Your task to perform on an android device: toggle improve location accuracy Image 0: 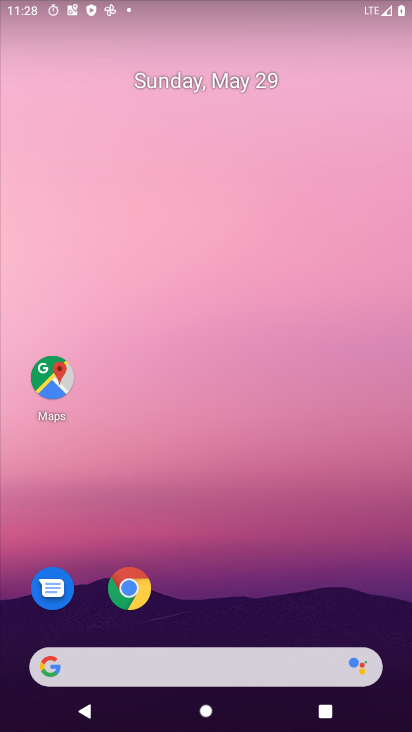
Step 0: drag from (264, 599) to (305, 84)
Your task to perform on an android device: toggle improve location accuracy Image 1: 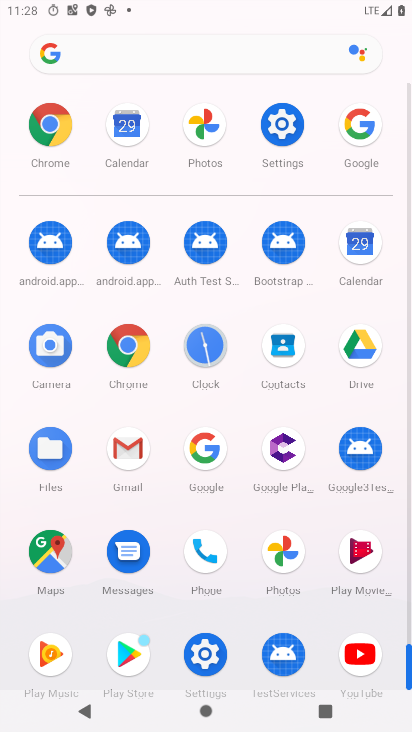
Step 1: click (192, 644)
Your task to perform on an android device: toggle improve location accuracy Image 2: 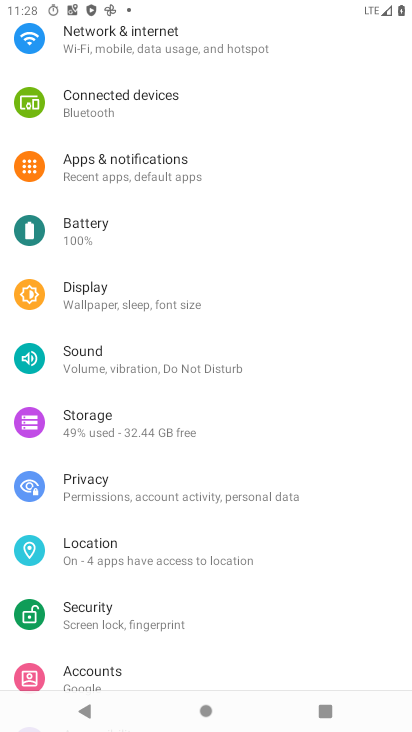
Step 2: click (132, 547)
Your task to perform on an android device: toggle improve location accuracy Image 3: 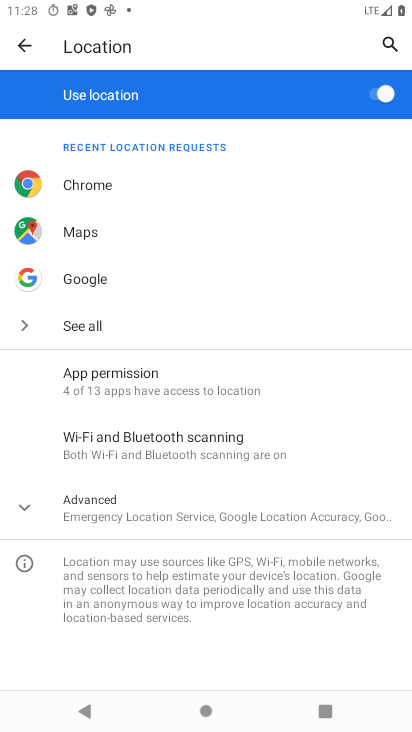
Step 3: click (72, 525)
Your task to perform on an android device: toggle improve location accuracy Image 4: 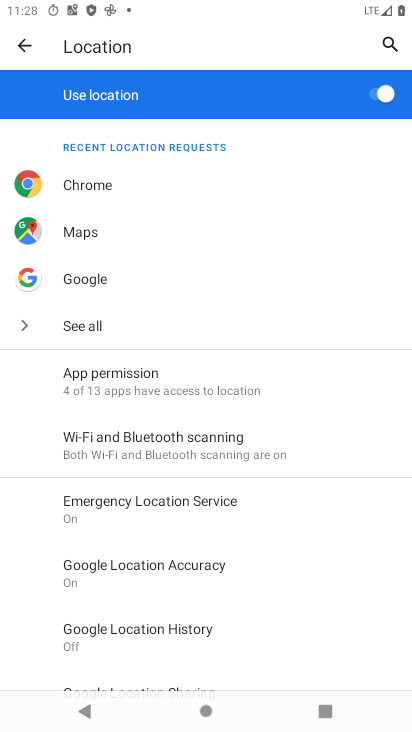
Step 4: drag from (160, 636) to (230, 394)
Your task to perform on an android device: toggle improve location accuracy Image 5: 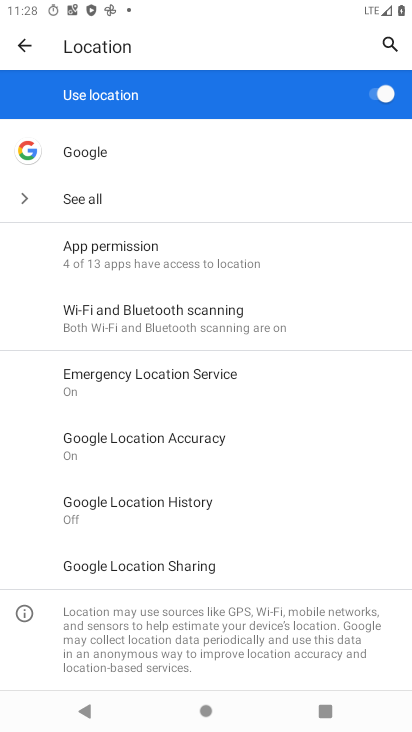
Step 5: click (190, 455)
Your task to perform on an android device: toggle improve location accuracy Image 6: 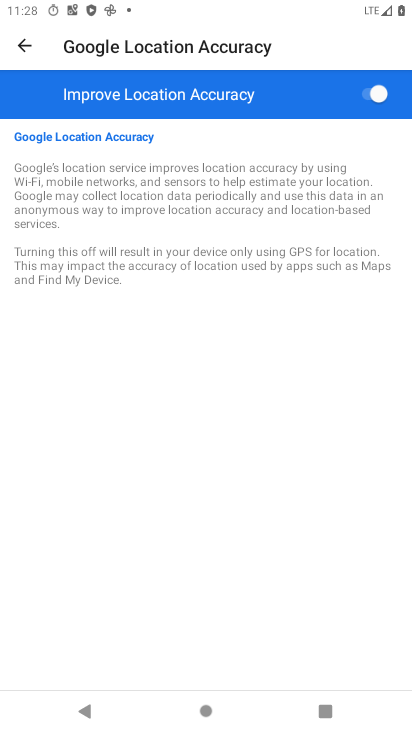
Step 6: click (363, 110)
Your task to perform on an android device: toggle improve location accuracy Image 7: 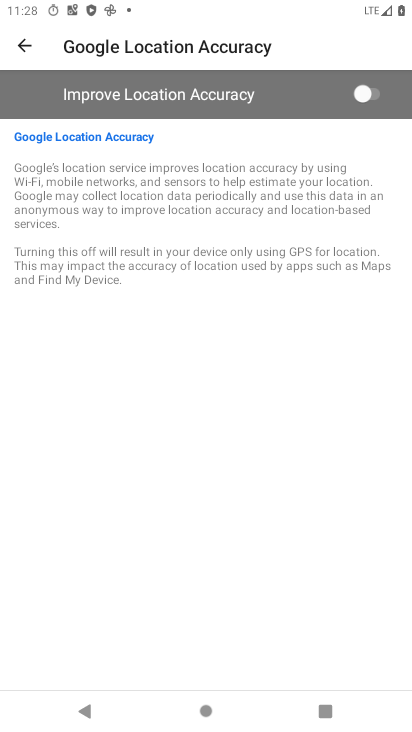
Step 7: task complete